Your task to perform on an android device: open app "Move to iOS" Image 0: 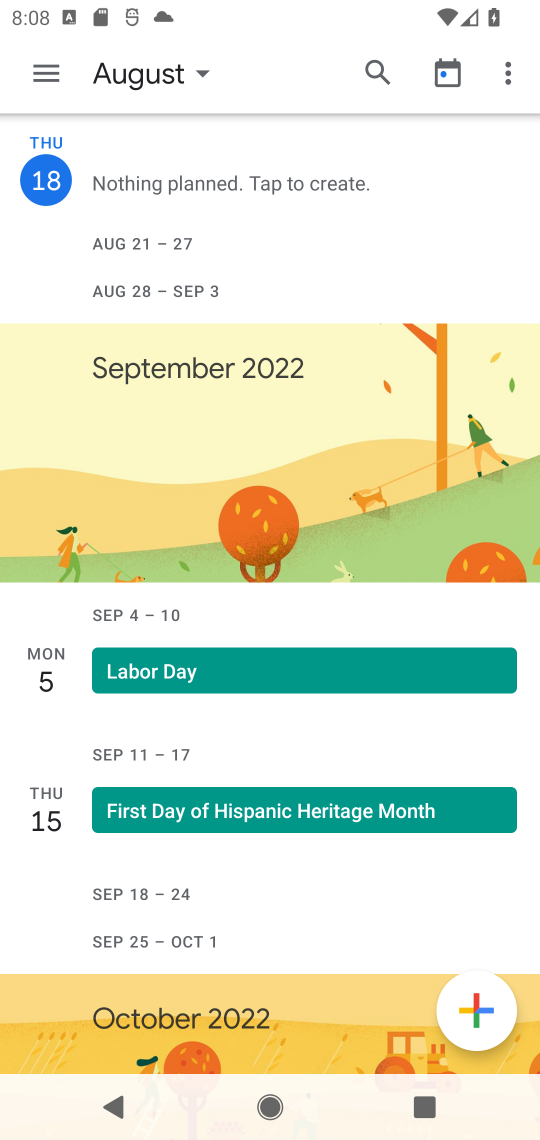
Step 0: press home button
Your task to perform on an android device: open app "Move to iOS" Image 1: 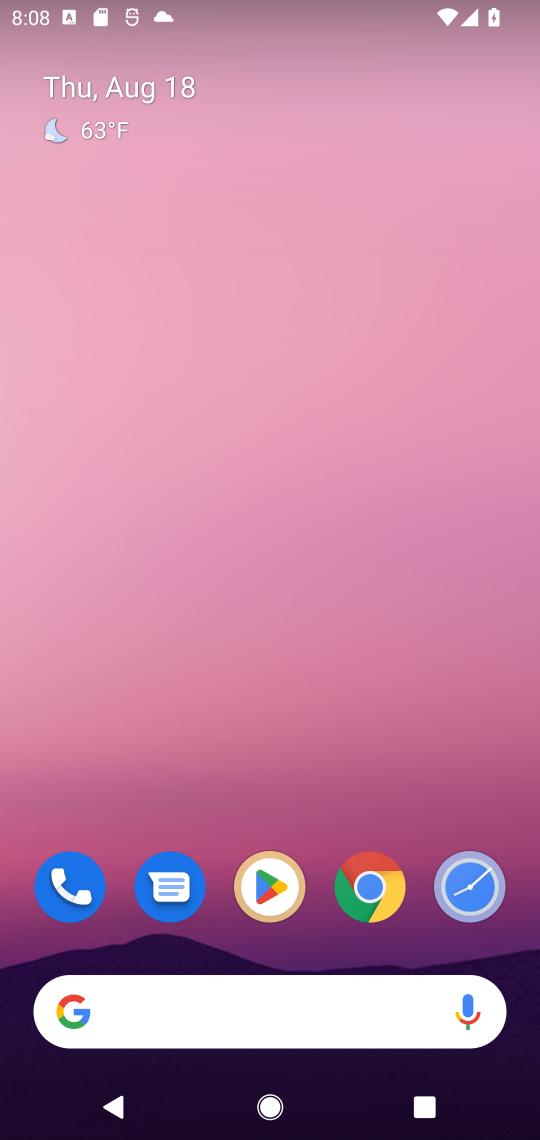
Step 1: click (267, 886)
Your task to perform on an android device: open app "Move to iOS" Image 2: 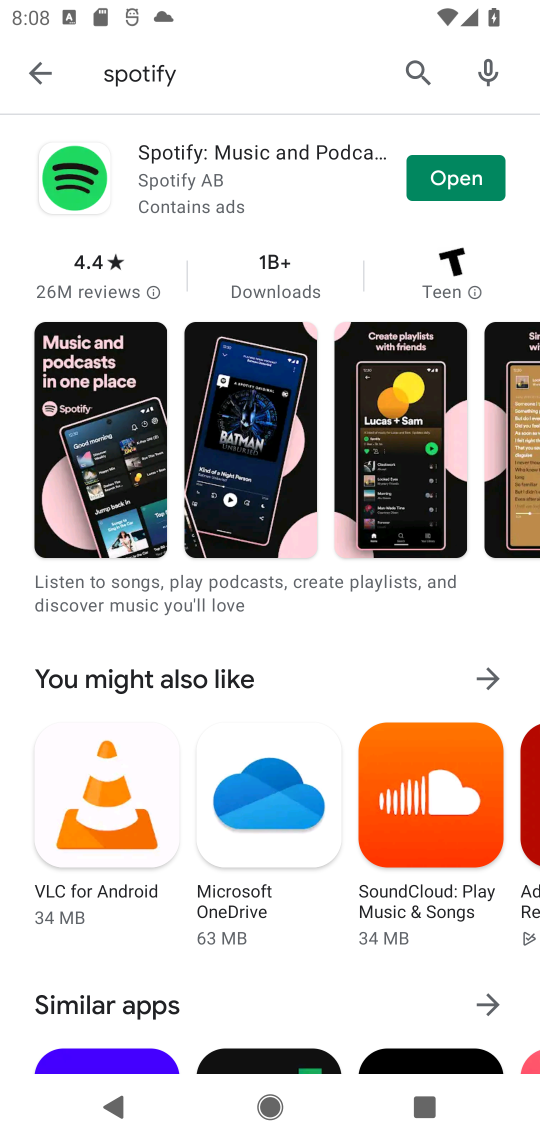
Step 2: click (416, 65)
Your task to perform on an android device: open app "Move to iOS" Image 3: 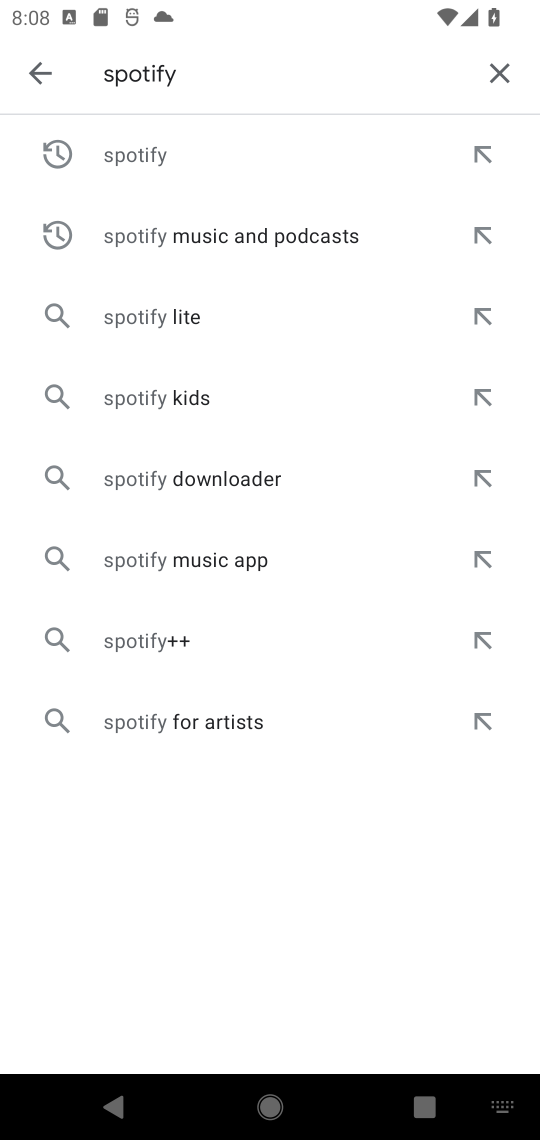
Step 3: click (493, 60)
Your task to perform on an android device: open app "Move to iOS" Image 4: 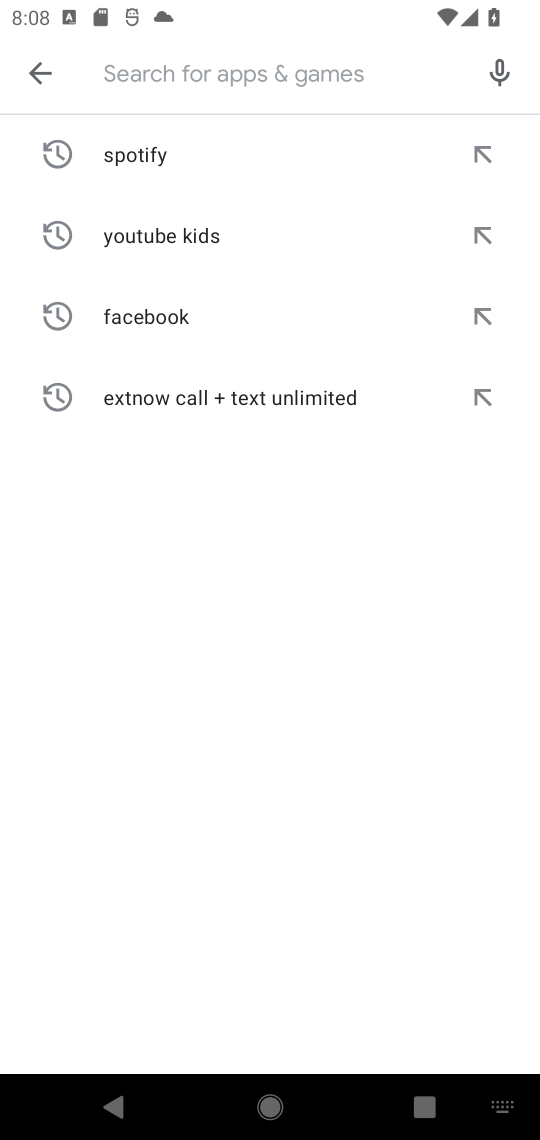
Step 4: type "Move to iOS"
Your task to perform on an android device: open app "Move to iOS" Image 5: 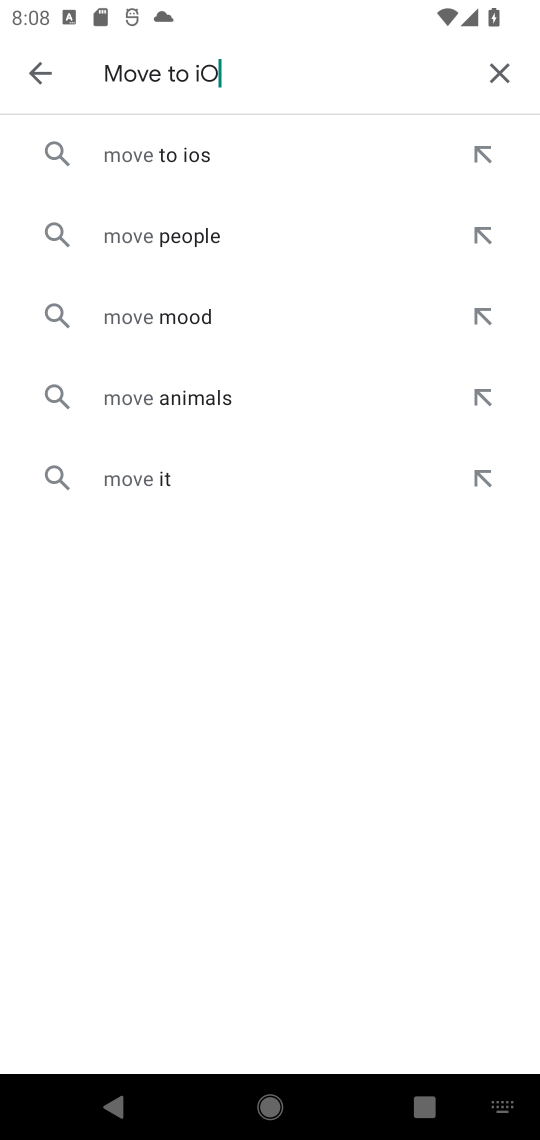
Step 5: type ""
Your task to perform on an android device: open app "Move to iOS" Image 6: 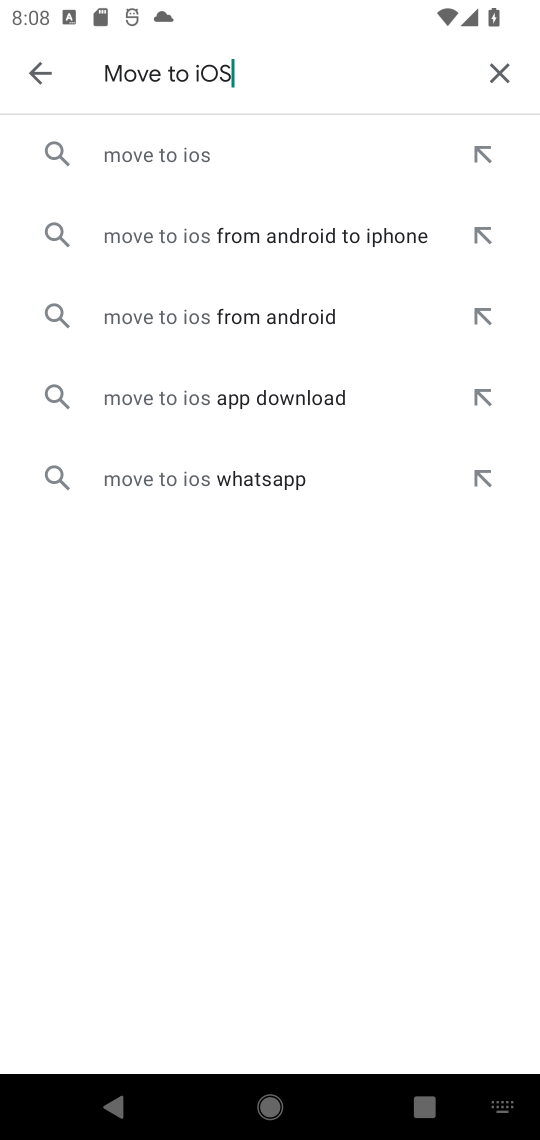
Step 6: click (164, 151)
Your task to perform on an android device: open app "Move to iOS" Image 7: 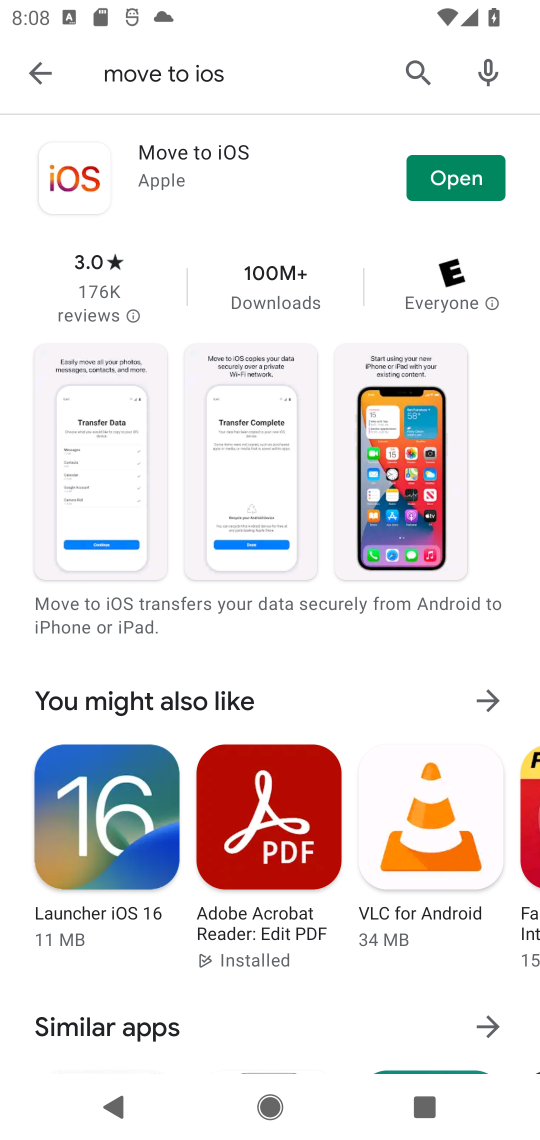
Step 7: click (455, 177)
Your task to perform on an android device: open app "Move to iOS" Image 8: 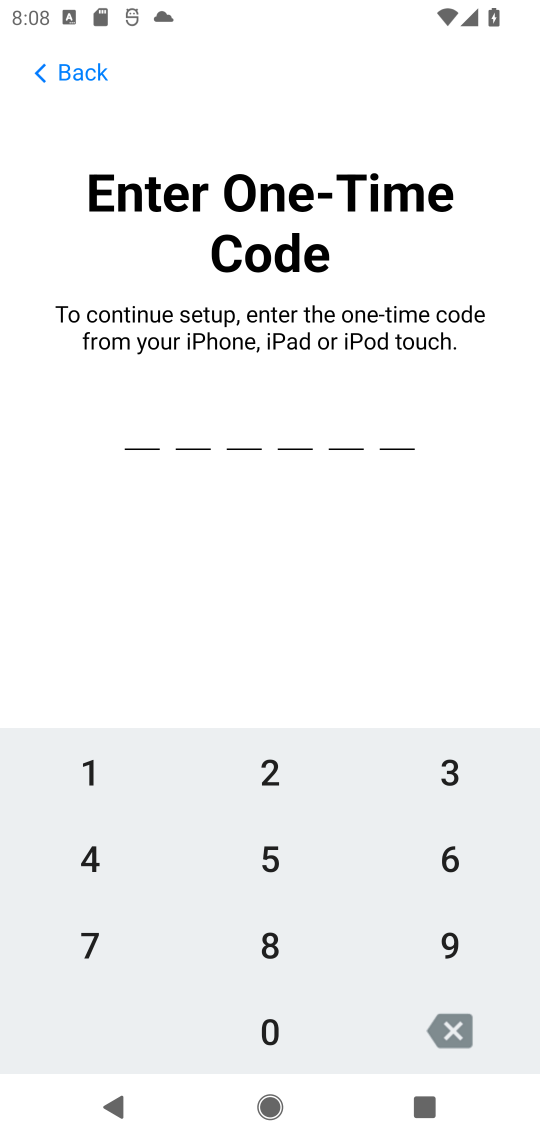
Step 8: task complete